Your task to perform on an android device: Open location settings Image 0: 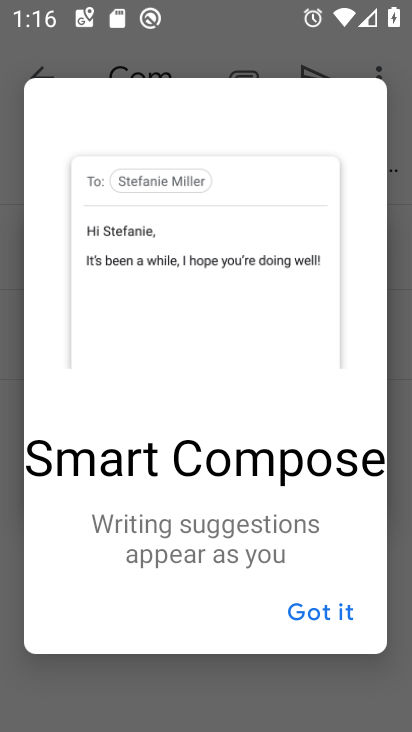
Step 0: press home button
Your task to perform on an android device: Open location settings Image 1: 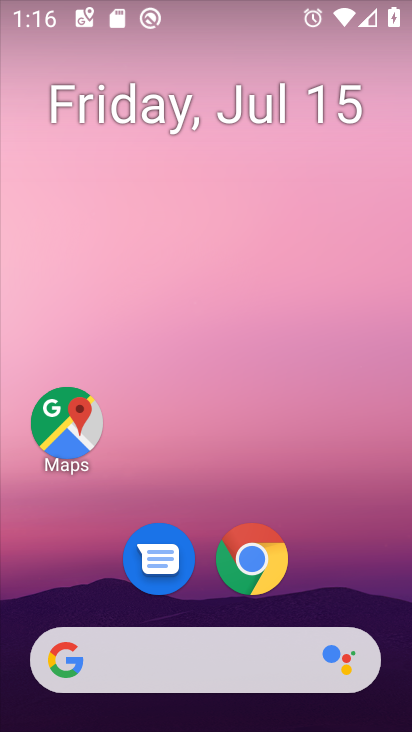
Step 1: drag from (365, 581) to (398, 83)
Your task to perform on an android device: Open location settings Image 2: 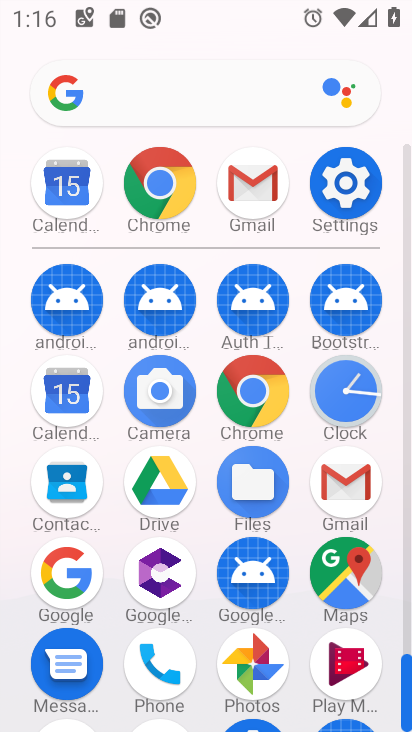
Step 2: click (352, 200)
Your task to perform on an android device: Open location settings Image 3: 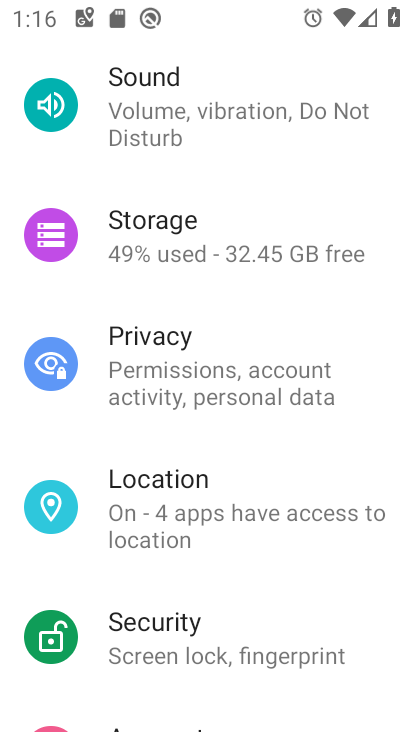
Step 3: drag from (361, 176) to (362, 280)
Your task to perform on an android device: Open location settings Image 4: 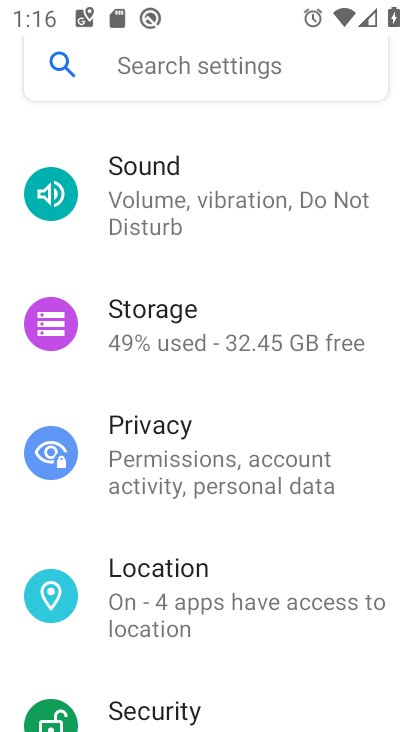
Step 4: drag from (377, 146) to (371, 260)
Your task to perform on an android device: Open location settings Image 5: 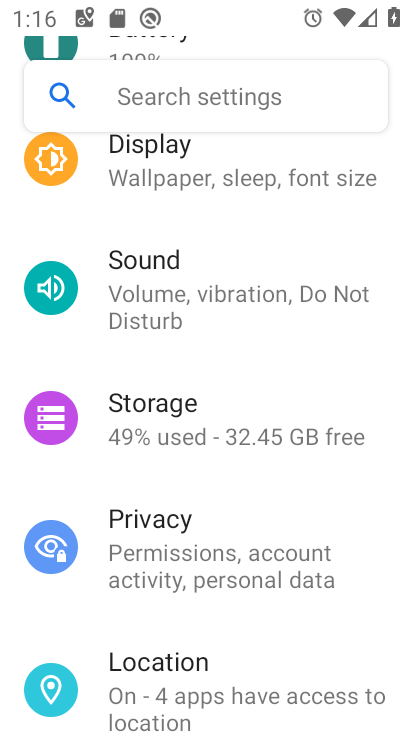
Step 5: drag from (381, 150) to (368, 301)
Your task to perform on an android device: Open location settings Image 6: 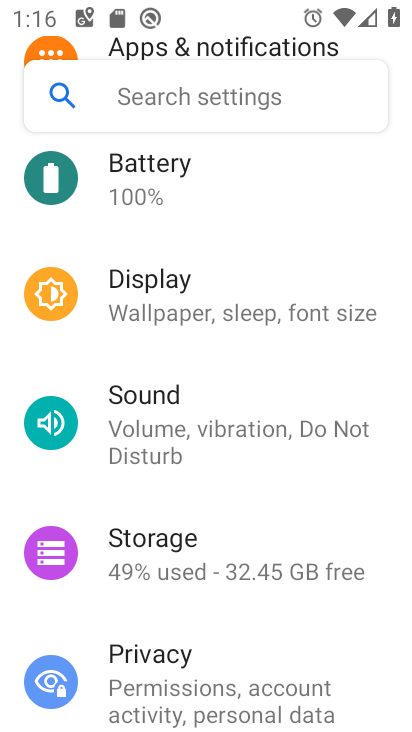
Step 6: drag from (371, 173) to (364, 304)
Your task to perform on an android device: Open location settings Image 7: 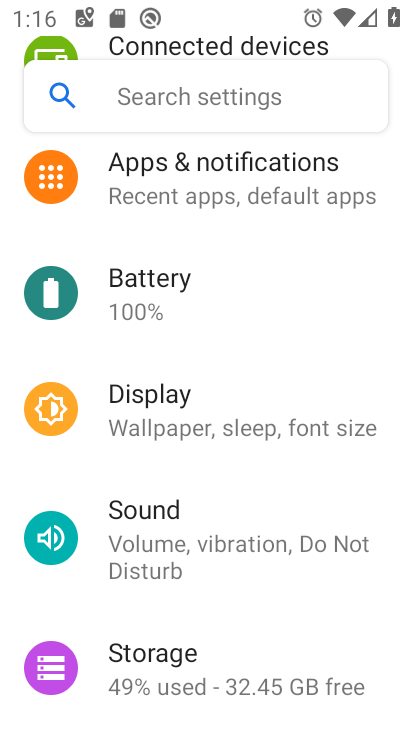
Step 7: drag from (371, 169) to (366, 339)
Your task to perform on an android device: Open location settings Image 8: 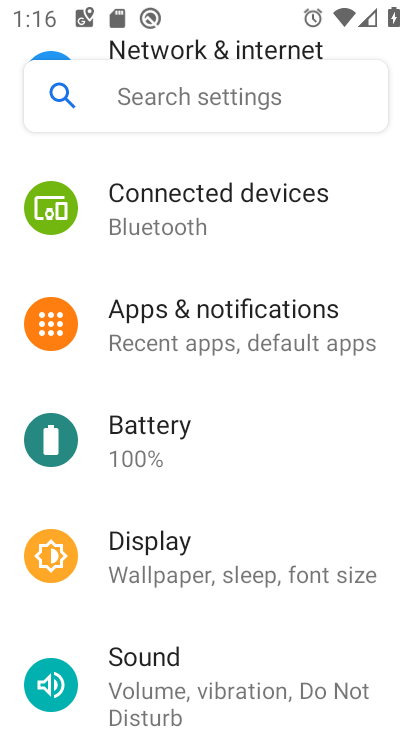
Step 8: drag from (366, 181) to (365, 320)
Your task to perform on an android device: Open location settings Image 9: 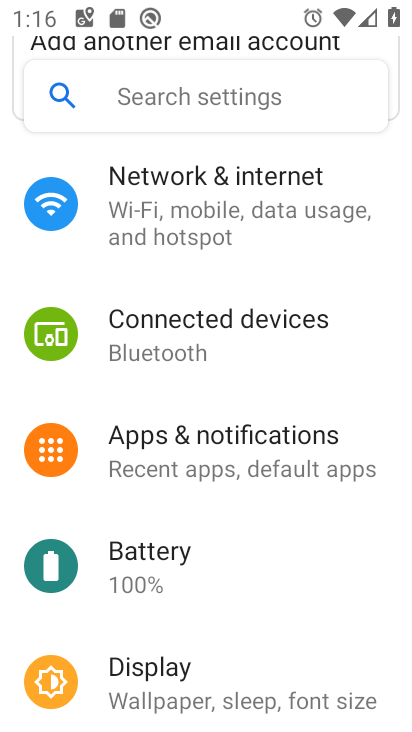
Step 9: drag from (389, 180) to (386, 334)
Your task to perform on an android device: Open location settings Image 10: 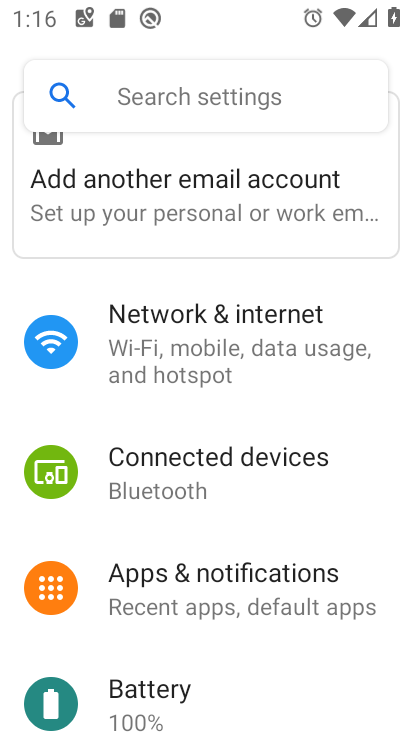
Step 10: drag from (365, 441) to (375, 345)
Your task to perform on an android device: Open location settings Image 11: 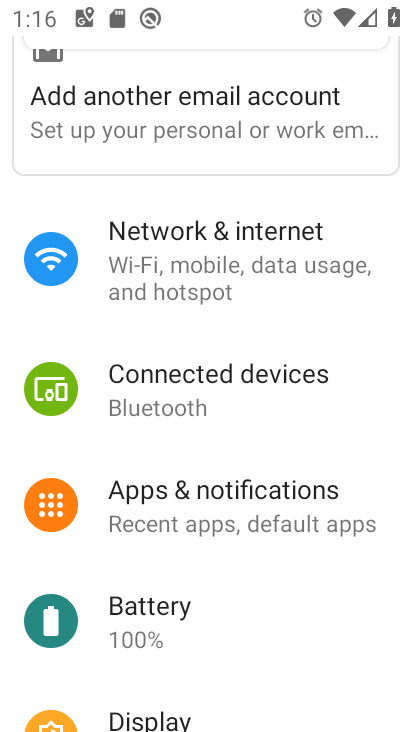
Step 11: drag from (380, 434) to (372, 325)
Your task to perform on an android device: Open location settings Image 12: 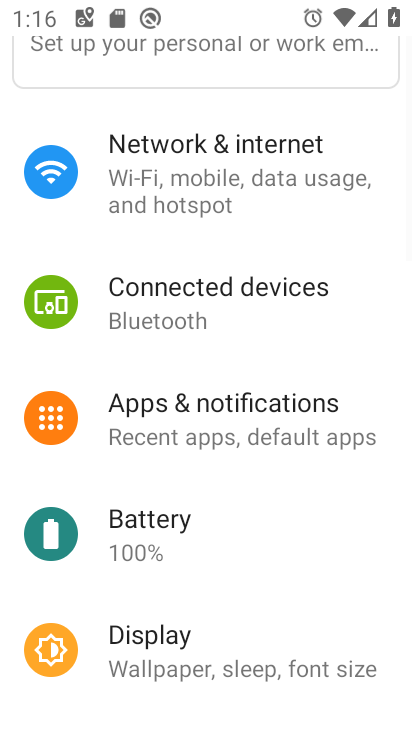
Step 12: drag from (369, 500) to (371, 296)
Your task to perform on an android device: Open location settings Image 13: 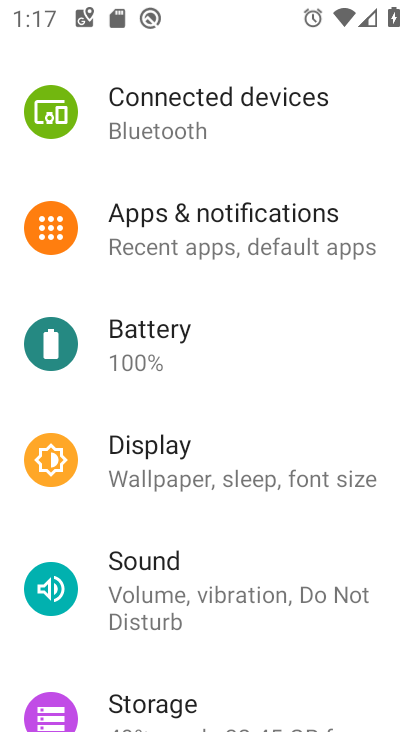
Step 13: drag from (350, 543) to (353, 423)
Your task to perform on an android device: Open location settings Image 14: 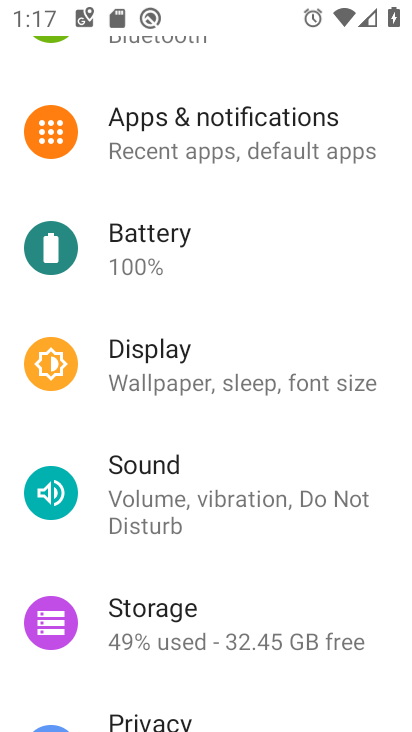
Step 14: drag from (351, 558) to (346, 401)
Your task to perform on an android device: Open location settings Image 15: 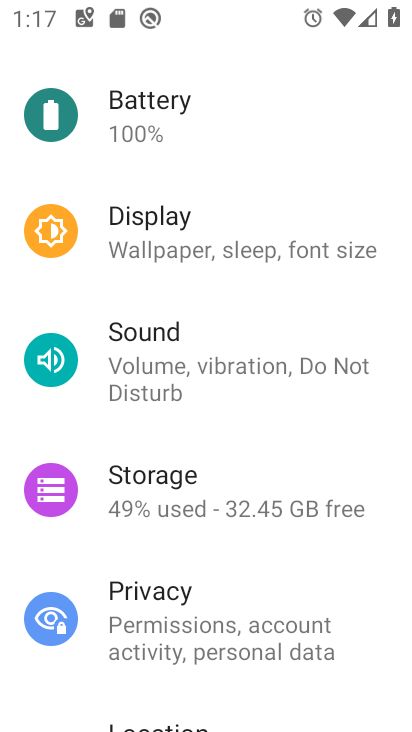
Step 15: drag from (340, 566) to (332, 379)
Your task to perform on an android device: Open location settings Image 16: 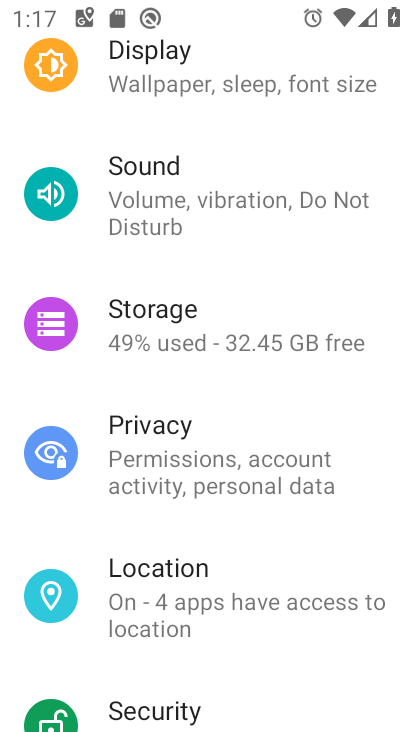
Step 16: drag from (336, 541) to (341, 334)
Your task to perform on an android device: Open location settings Image 17: 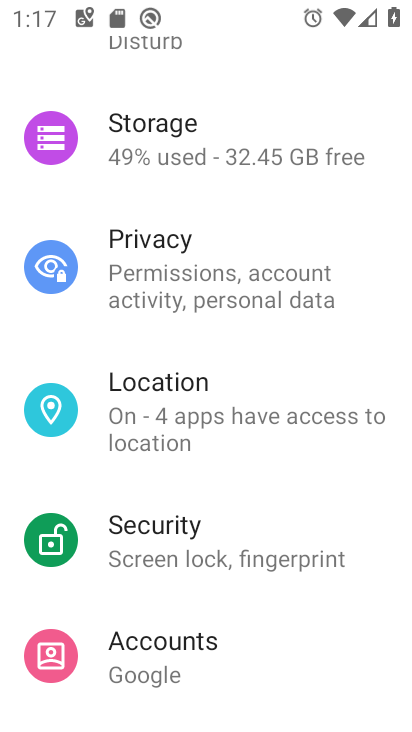
Step 17: drag from (330, 599) to (332, 431)
Your task to perform on an android device: Open location settings Image 18: 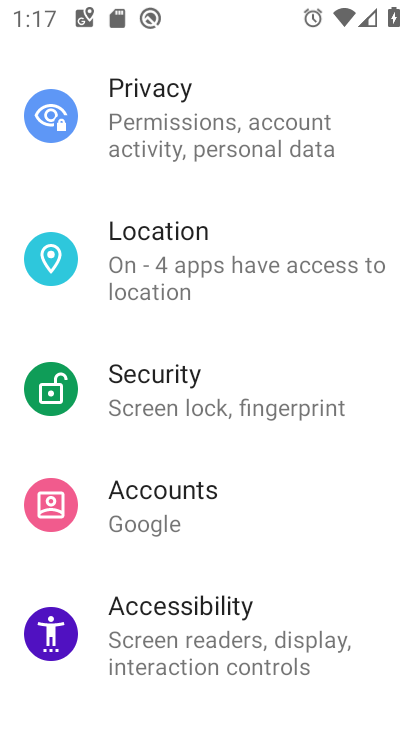
Step 18: click (279, 285)
Your task to perform on an android device: Open location settings Image 19: 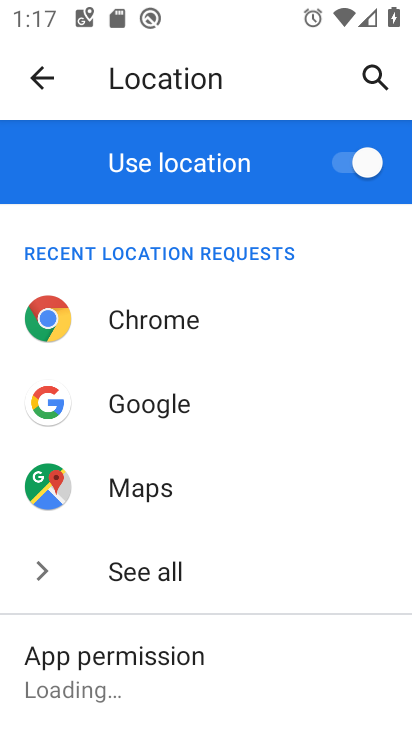
Step 19: task complete